Your task to perform on an android device: Open calendar and show me the second week of next month Image 0: 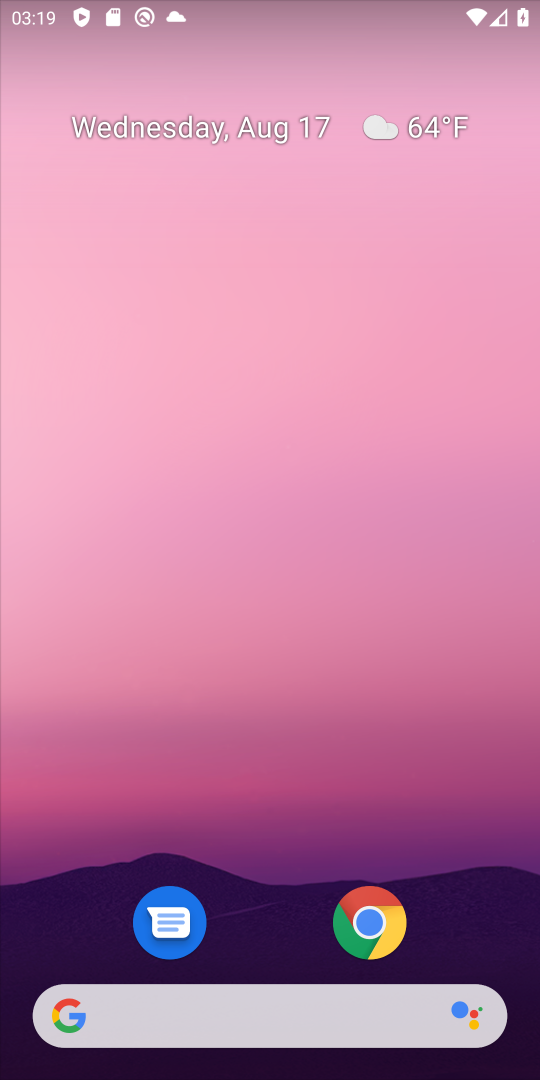
Step 0: drag from (86, 601) to (189, 279)
Your task to perform on an android device: Open calendar and show me the second week of next month Image 1: 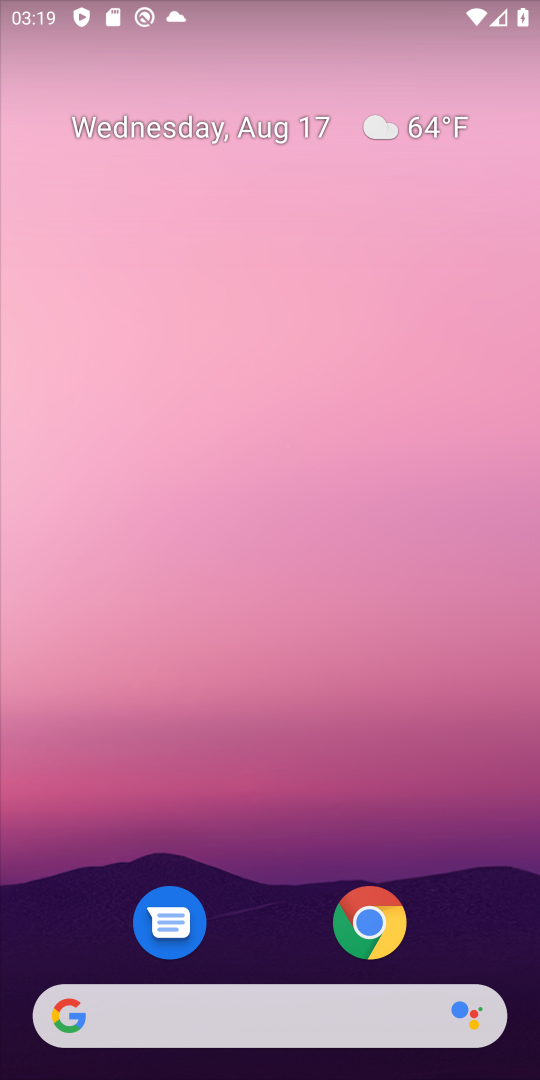
Step 1: drag from (39, 734) to (191, 258)
Your task to perform on an android device: Open calendar and show me the second week of next month Image 2: 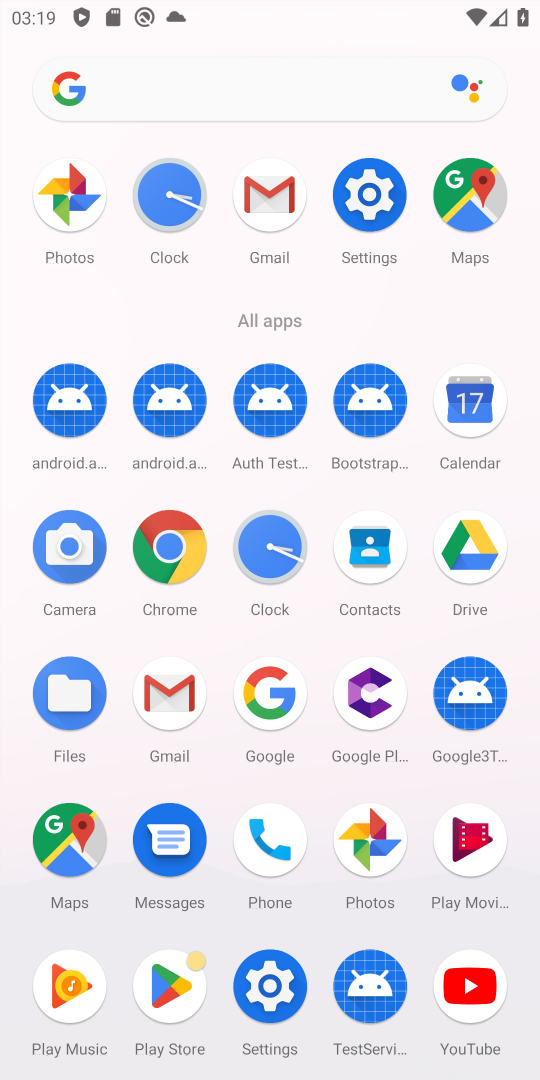
Step 2: click (462, 404)
Your task to perform on an android device: Open calendar and show me the second week of next month Image 3: 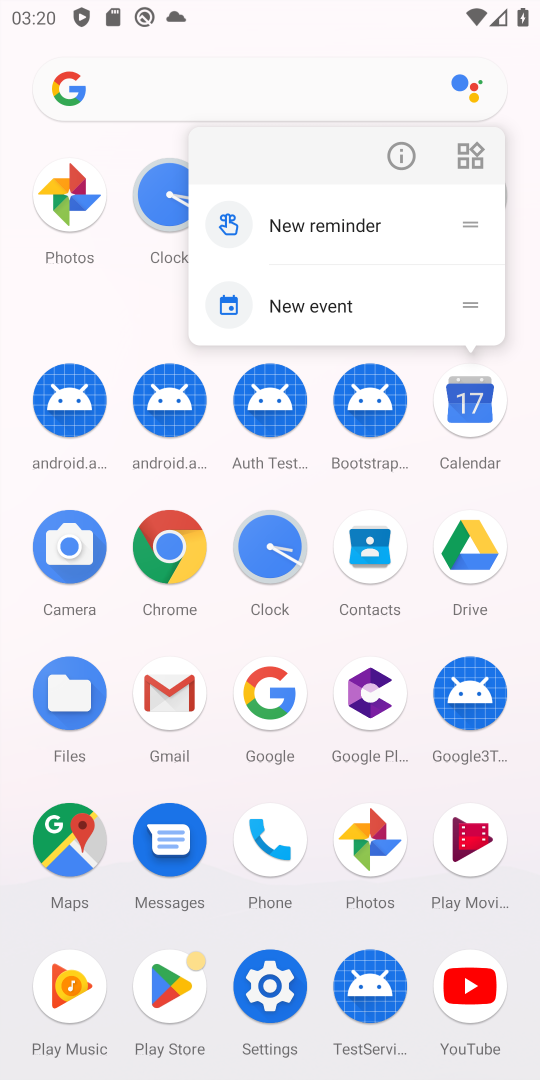
Step 3: click (466, 402)
Your task to perform on an android device: Open calendar and show me the second week of next month Image 4: 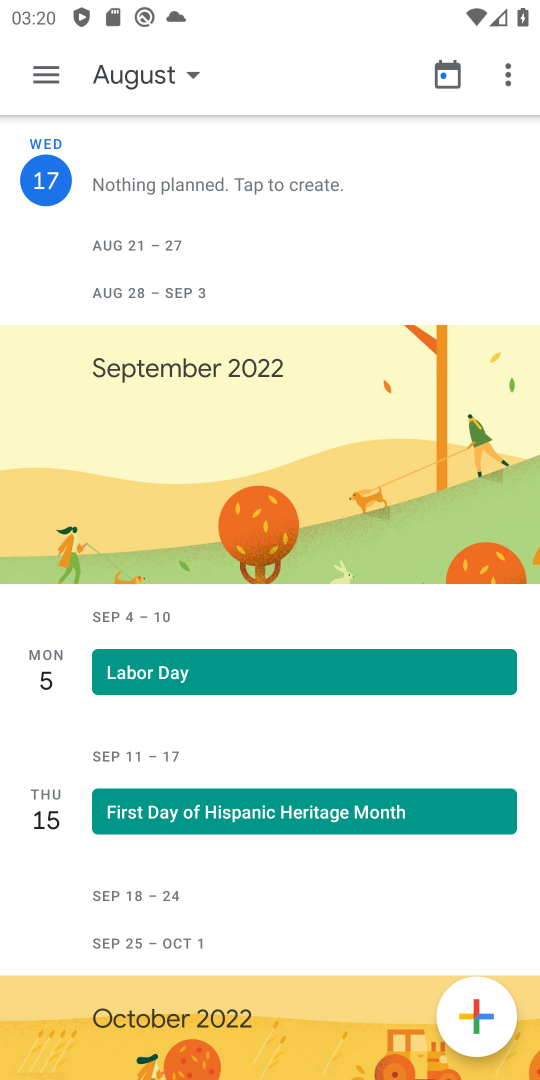
Step 4: click (124, 69)
Your task to perform on an android device: Open calendar and show me the second week of next month Image 5: 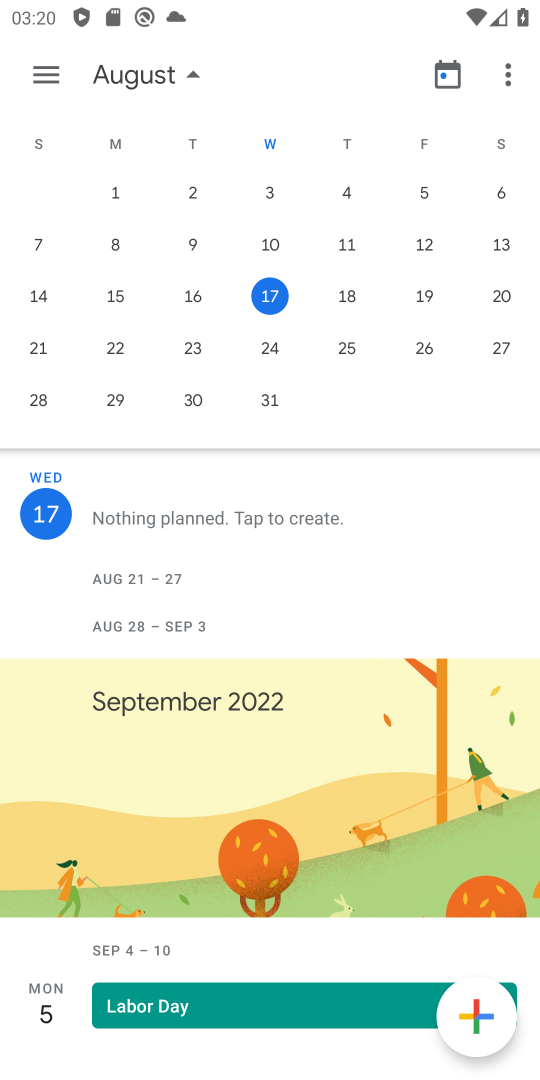
Step 5: drag from (536, 335) to (78, 203)
Your task to perform on an android device: Open calendar and show me the second week of next month Image 6: 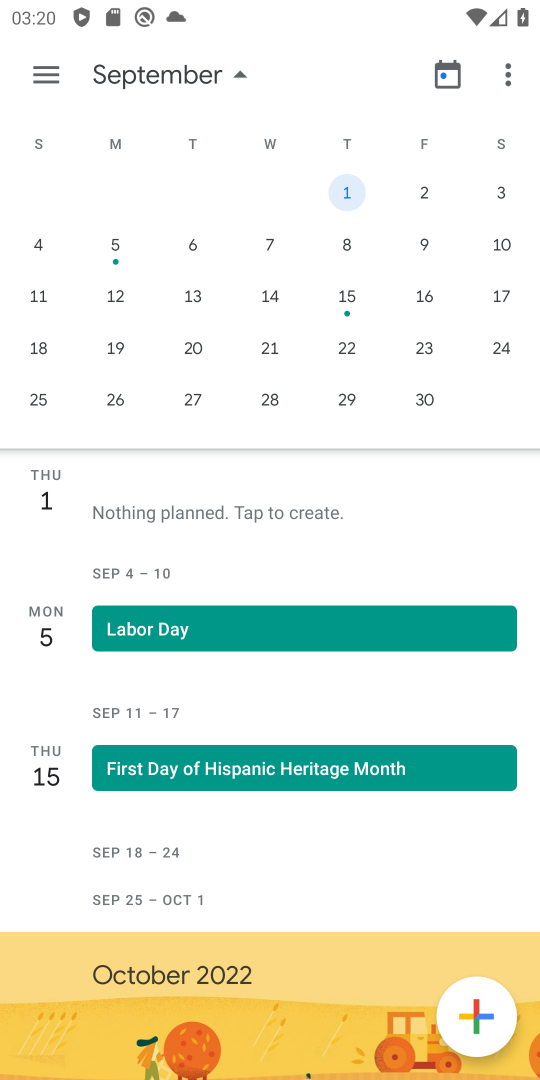
Step 6: click (116, 247)
Your task to perform on an android device: Open calendar and show me the second week of next month Image 7: 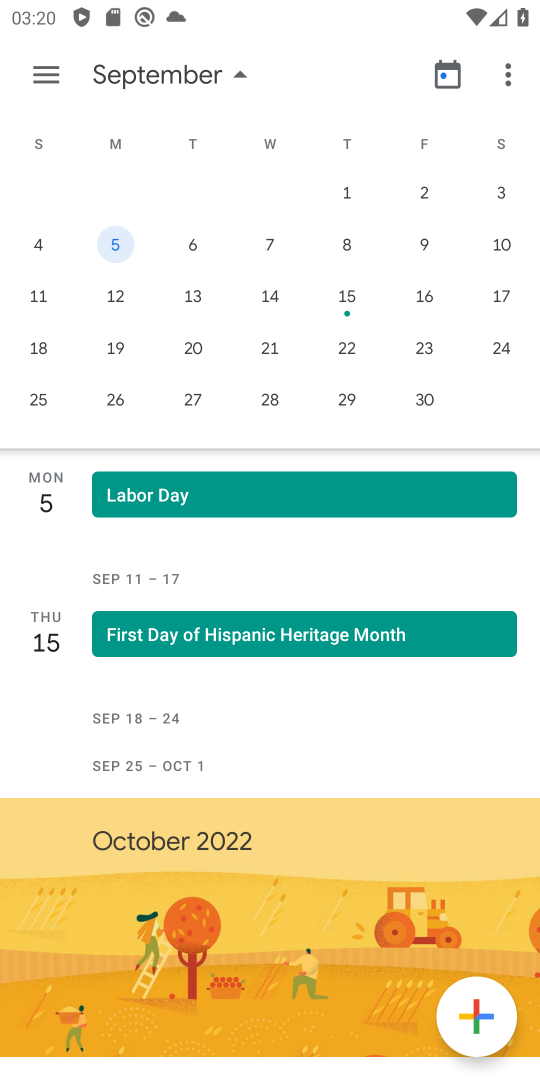
Step 7: click (192, 247)
Your task to perform on an android device: Open calendar and show me the second week of next month Image 8: 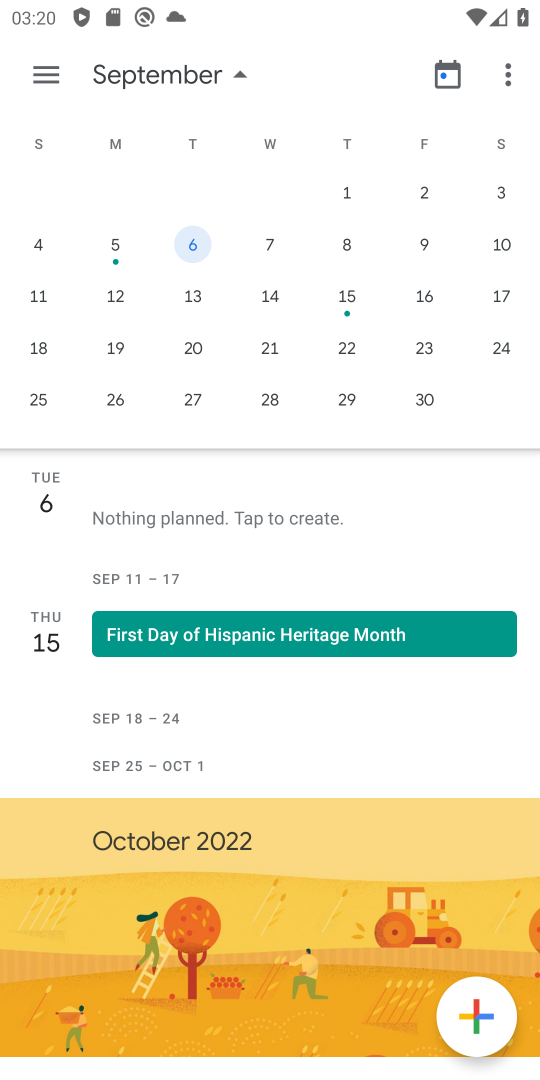
Step 8: click (254, 241)
Your task to perform on an android device: Open calendar and show me the second week of next month Image 9: 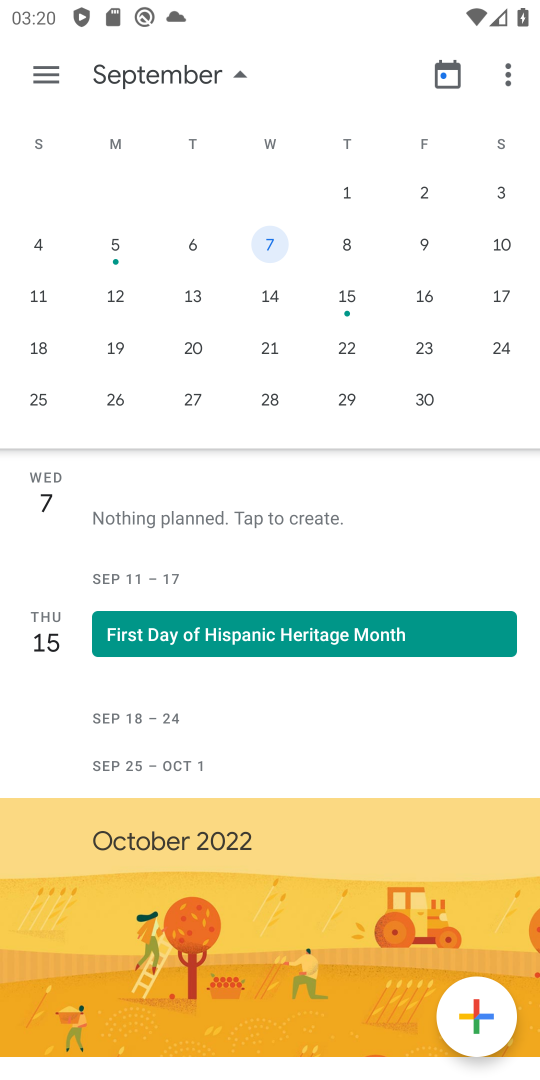
Step 9: click (363, 246)
Your task to perform on an android device: Open calendar and show me the second week of next month Image 10: 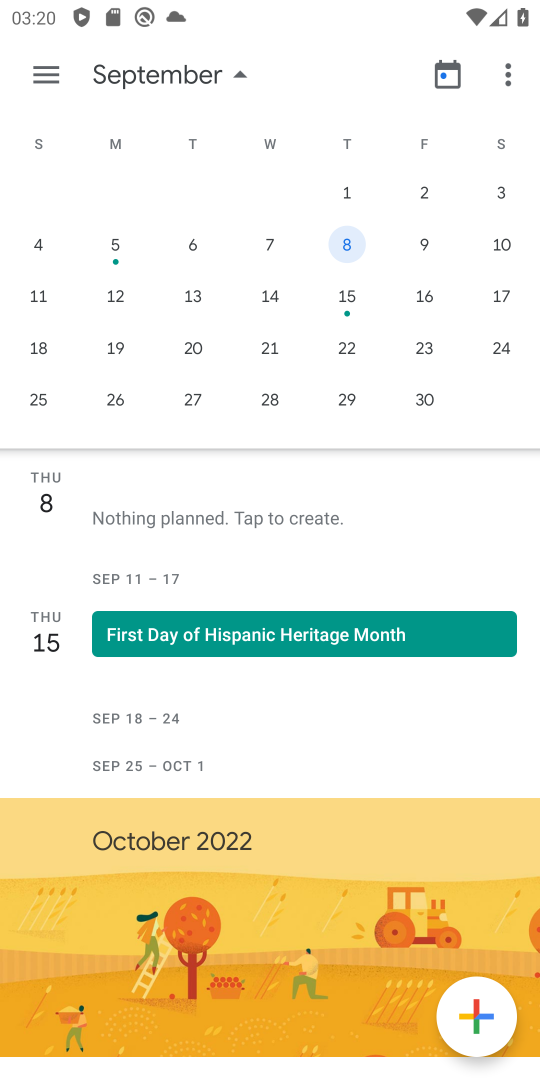
Step 10: task complete